Your task to perform on an android device: Open accessibility settings Image 0: 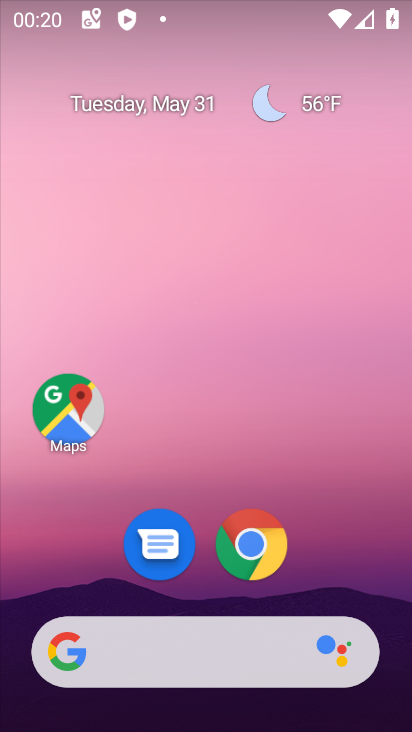
Step 0: drag from (368, 542) to (234, 129)
Your task to perform on an android device: Open accessibility settings Image 1: 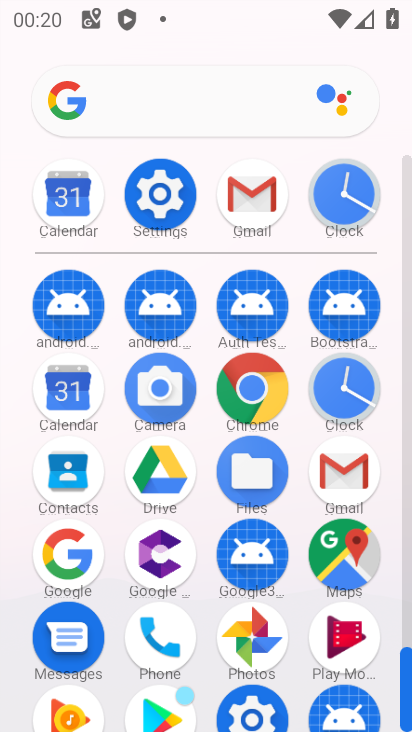
Step 1: click (165, 190)
Your task to perform on an android device: Open accessibility settings Image 2: 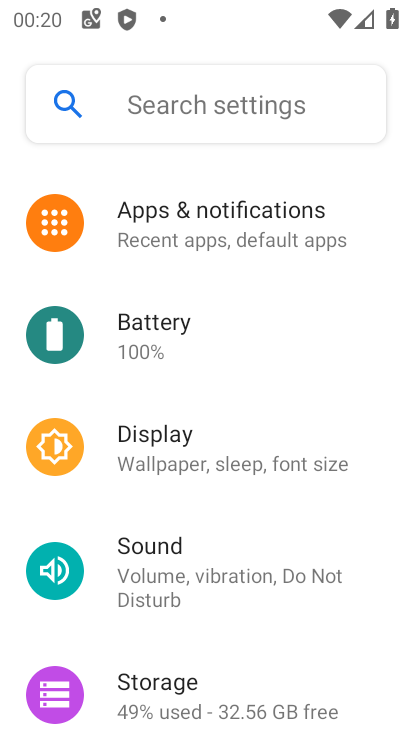
Step 2: drag from (224, 533) to (175, 233)
Your task to perform on an android device: Open accessibility settings Image 3: 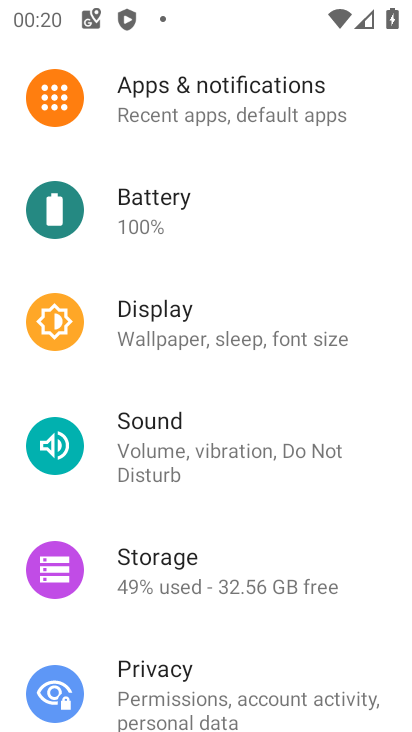
Step 3: drag from (215, 504) to (218, 314)
Your task to perform on an android device: Open accessibility settings Image 4: 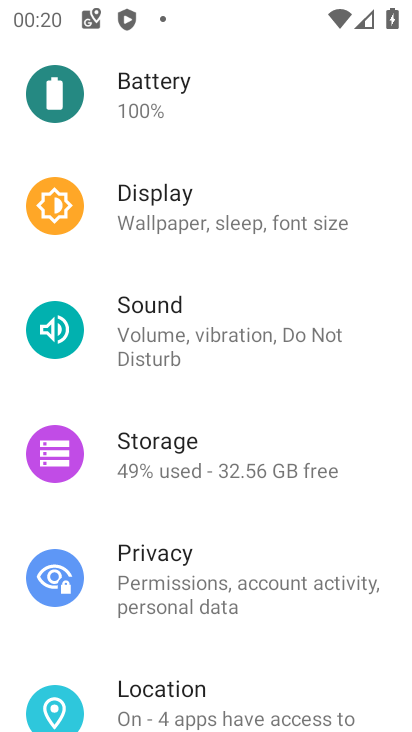
Step 4: drag from (226, 624) to (129, 272)
Your task to perform on an android device: Open accessibility settings Image 5: 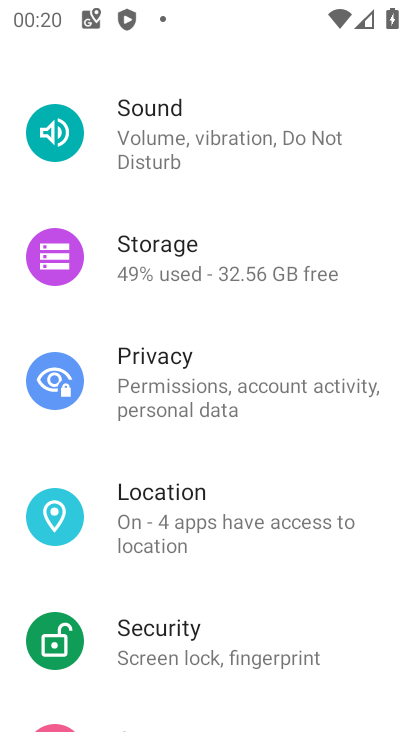
Step 5: drag from (203, 602) to (173, 380)
Your task to perform on an android device: Open accessibility settings Image 6: 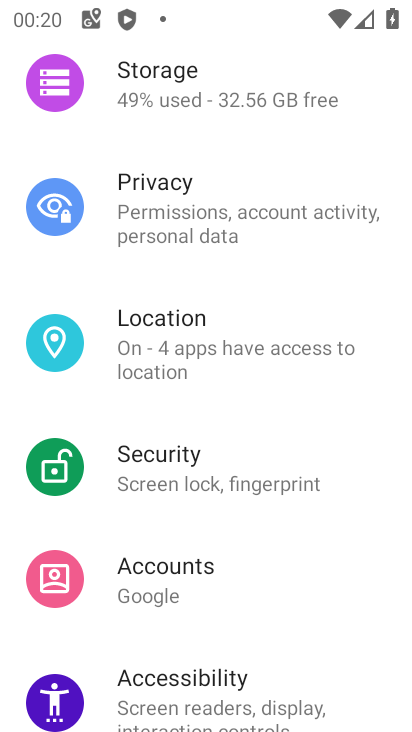
Step 6: click (180, 681)
Your task to perform on an android device: Open accessibility settings Image 7: 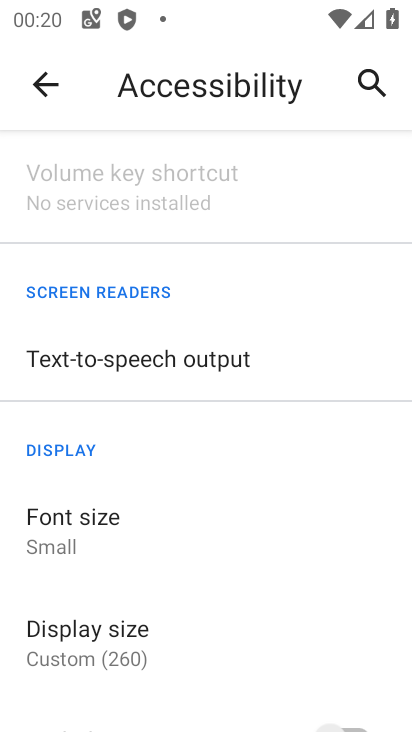
Step 7: task complete